Your task to perform on an android device: Toggle the flashlight Image 0: 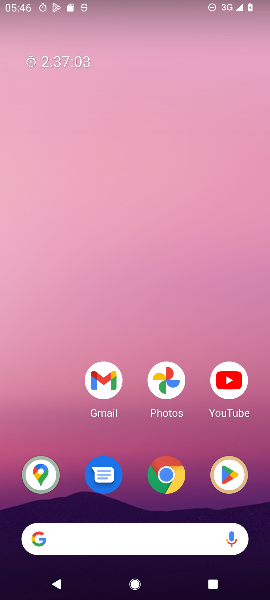
Step 0: press home button
Your task to perform on an android device: Toggle the flashlight Image 1: 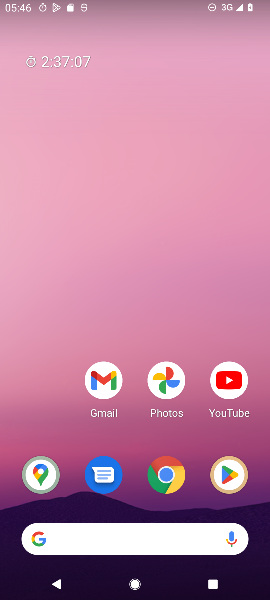
Step 1: drag from (132, 3) to (153, 368)
Your task to perform on an android device: Toggle the flashlight Image 2: 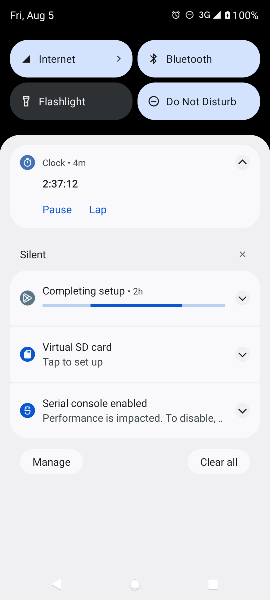
Step 2: drag from (130, 28) to (141, 298)
Your task to perform on an android device: Toggle the flashlight Image 3: 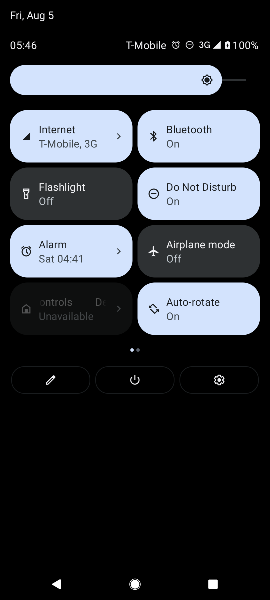
Step 3: click (69, 183)
Your task to perform on an android device: Toggle the flashlight Image 4: 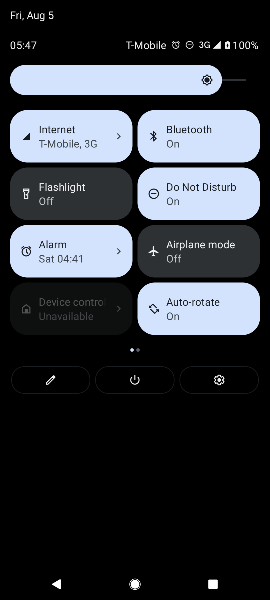
Step 4: task complete